Your task to perform on an android device: Open notification settings Image 0: 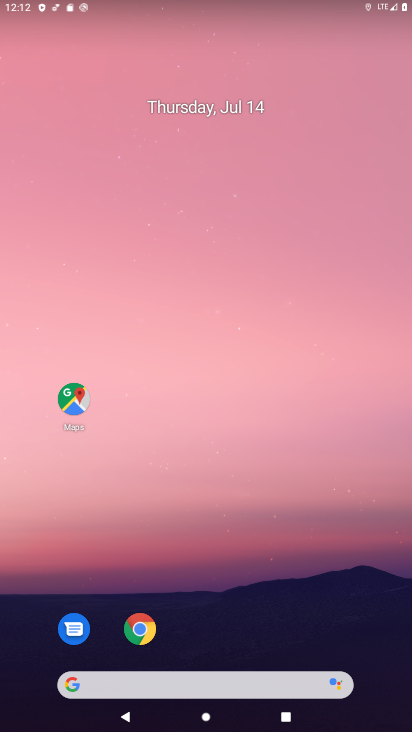
Step 0: drag from (333, 516) to (357, 2)
Your task to perform on an android device: Open notification settings Image 1: 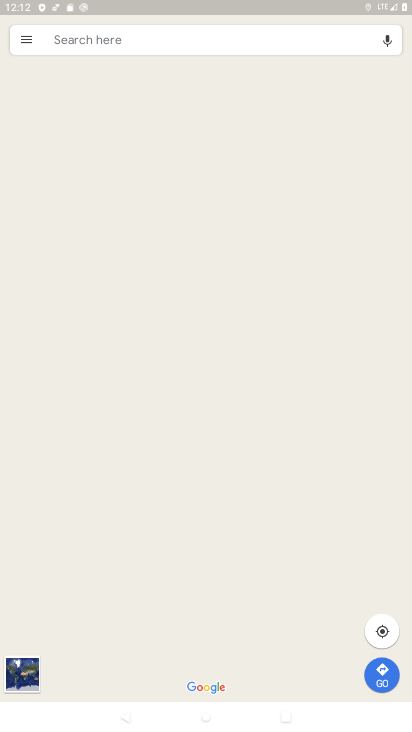
Step 1: press home button
Your task to perform on an android device: Open notification settings Image 2: 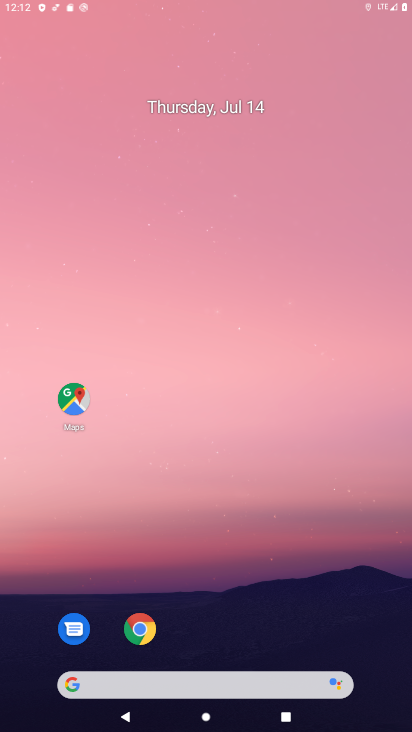
Step 2: drag from (334, 630) to (311, 30)
Your task to perform on an android device: Open notification settings Image 3: 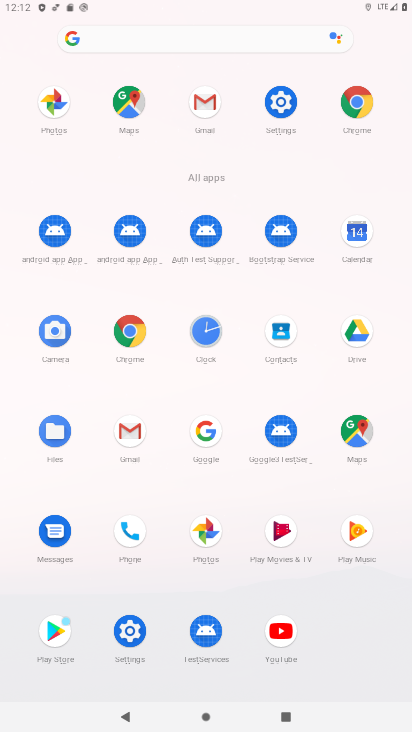
Step 3: click (282, 99)
Your task to perform on an android device: Open notification settings Image 4: 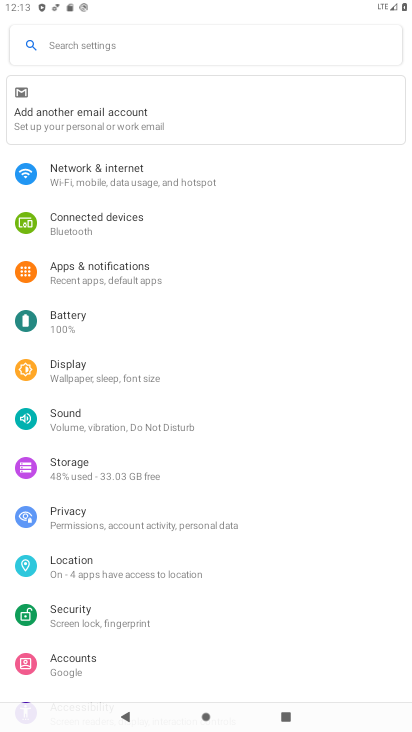
Step 4: click (125, 267)
Your task to perform on an android device: Open notification settings Image 5: 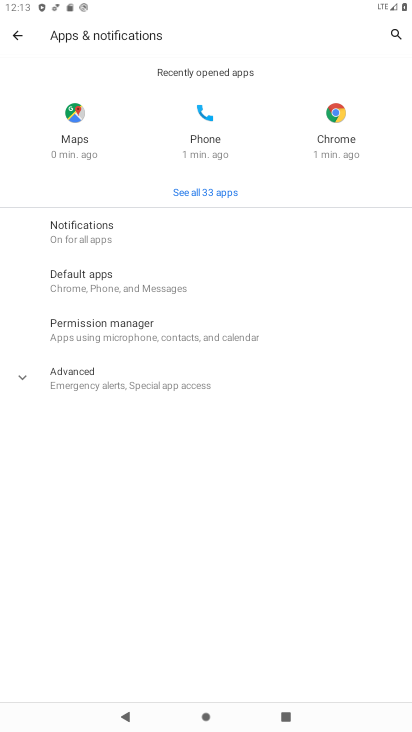
Step 5: click (90, 227)
Your task to perform on an android device: Open notification settings Image 6: 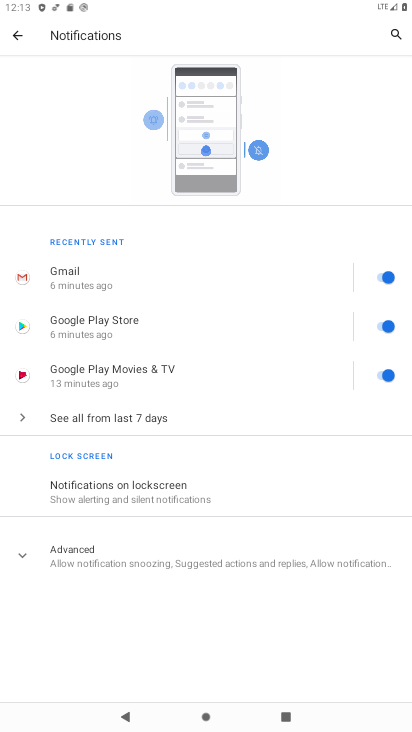
Step 6: task complete